Your task to perform on an android device: Open Wikipedia Image 0: 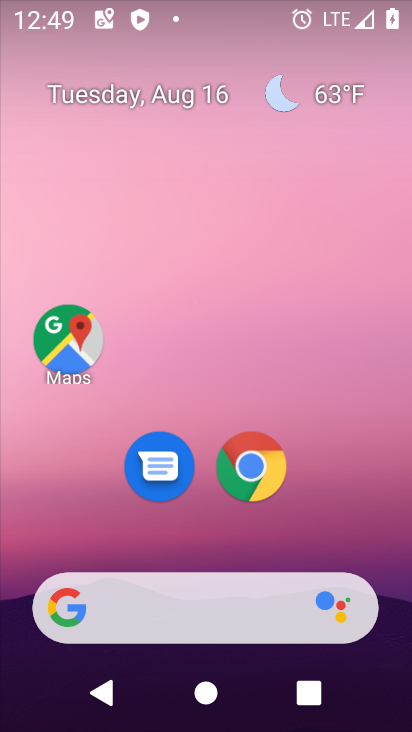
Step 0: click (217, 137)
Your task to perform on an android device: Open Wikipedia Image 1: 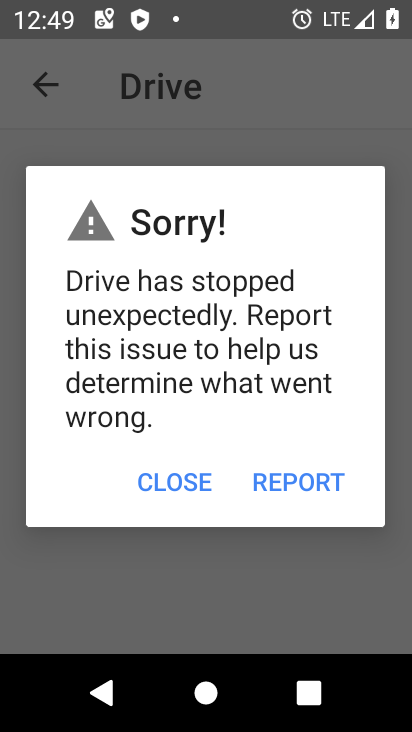
Step 1: press home button
Your task to perform on an android device: Open Wikipedia Image 2: 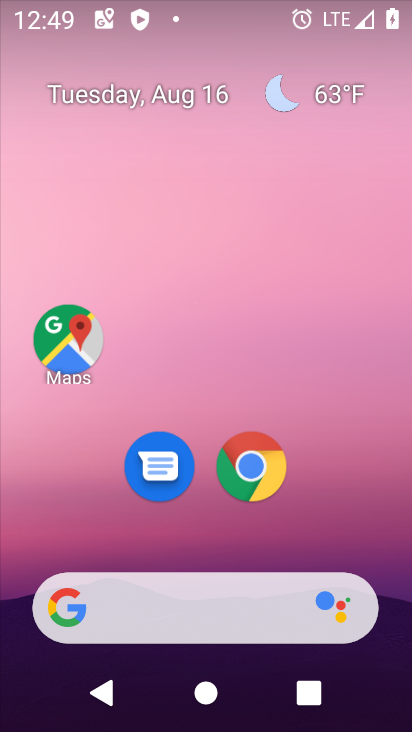
Step 2: drag from (147, 602) to (161, 117)
Your task to perform on an android device: Open Wikipedia Image 3: 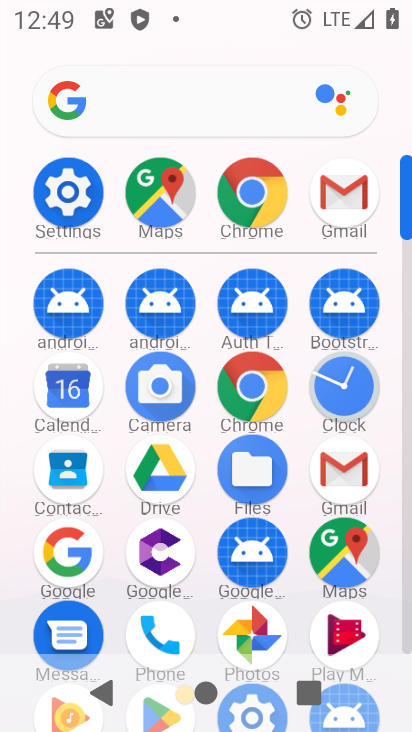
Step 3: click (247, 182)
Your task to perform on an android device: Open Wikipedia Image 4: 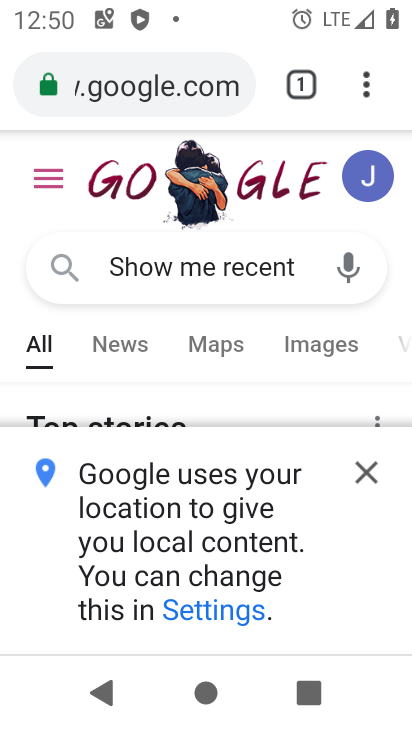
Step 4: click (354, 472)
Your task to perform on an android device: Open Wikipedia Image 5: 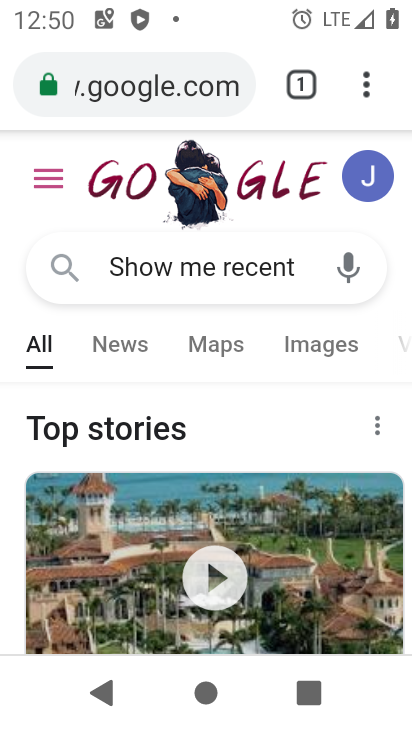
Step 5: click (366, 96)
Your task to perform on an android device: Open Wikipedia Image 6: 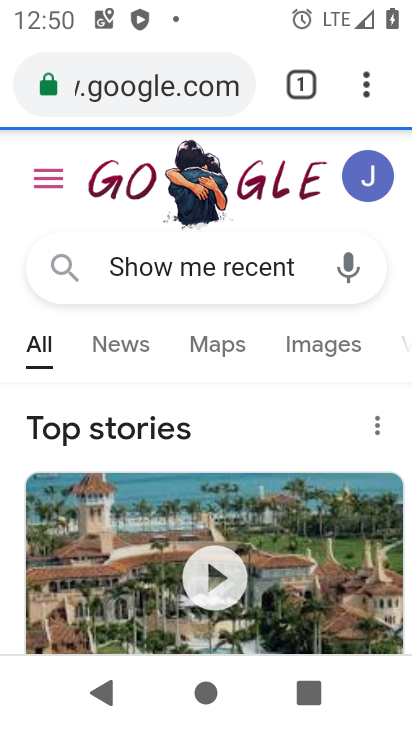
Step 6: click (365, 74)
Your task to perform on an android device: Open Wikipedia Image 7: 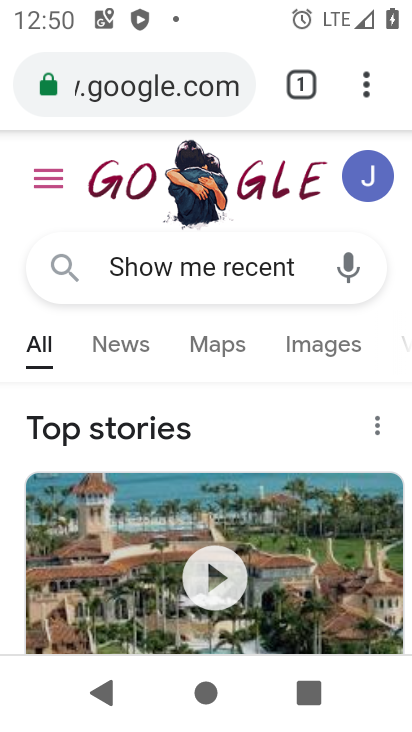
Step 7: click (370, 73)
Your task to perform on an android device: Open Wikipedia Image 8: 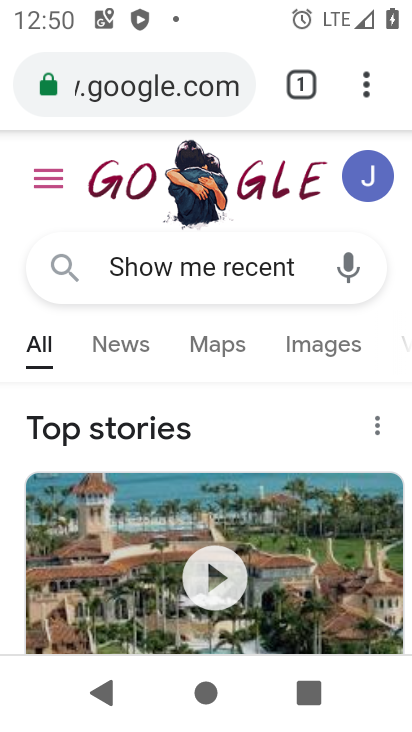
Step 8: click (370, 73)
Your task to perform on an android device: Open Wikipedia Image 9: 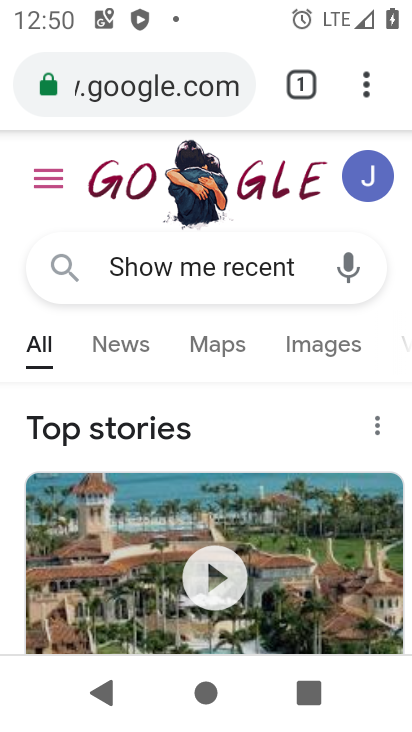
Step 9: click (375, 91)
Your task to perform on an android device: Open Wikipedia Image 10: 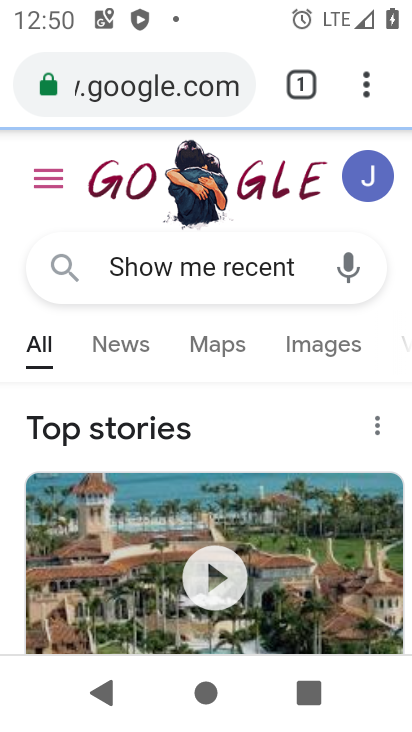
Step 10: click (365, 87)
Your task to perform on an android device: Open Wikipedia Image 11: 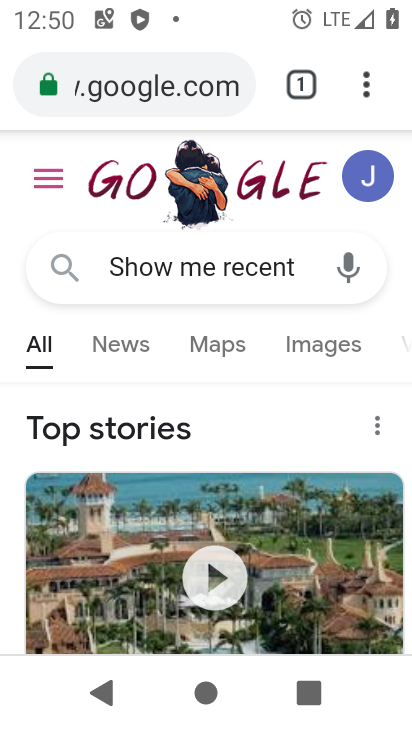
Step 11: click (361, 83)
Your task to perform on an android device: Open Wikipedia Image 12: 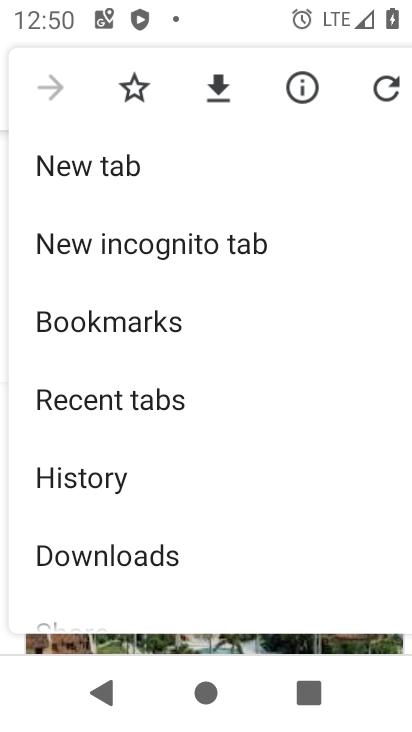
Step 12: click (100, 167)
Your task to perform on an android device: Open Wikipedia Image 13: 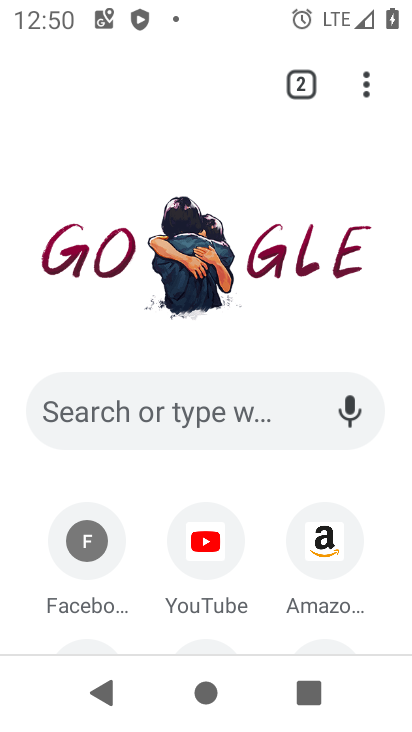
Step 13: drag from (144, 571) to (202, 289)
Your task to perform on an android device: Open Wikipedia Image 14: 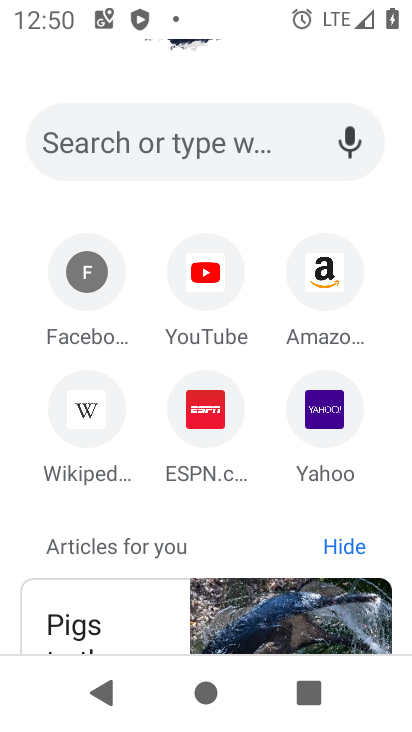
Step 14: click (57, 401)
Your task to perform on an android device: Open Wikipedia Image 15: 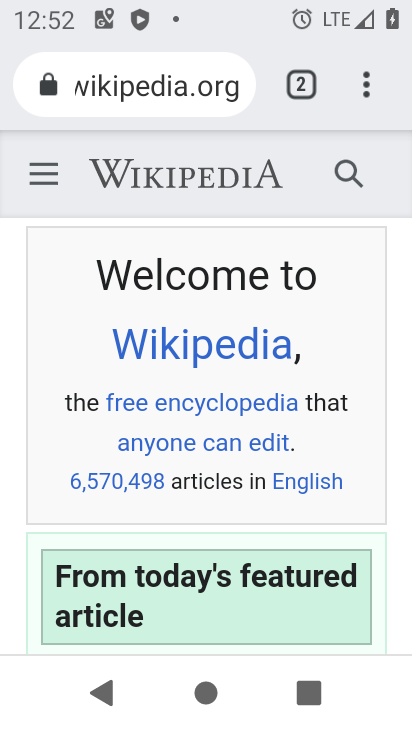
Step 15: task complete